Your task to perform on an android device: Open internet settings Image 0: 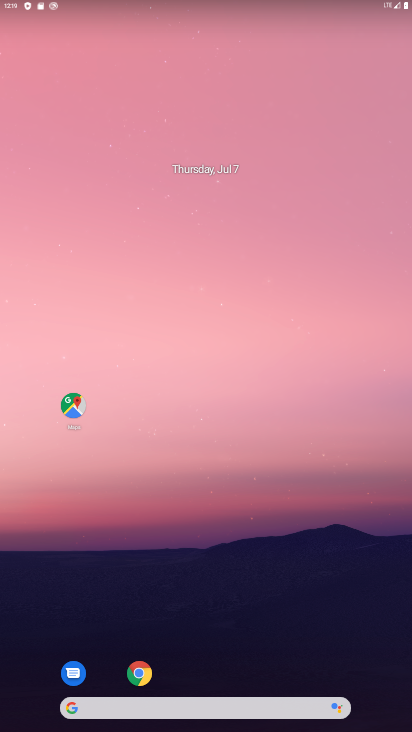
Step 0: drag from (189, 635) to (189, 113)
Your task to perform on an android device: Open internet settings Image 1: 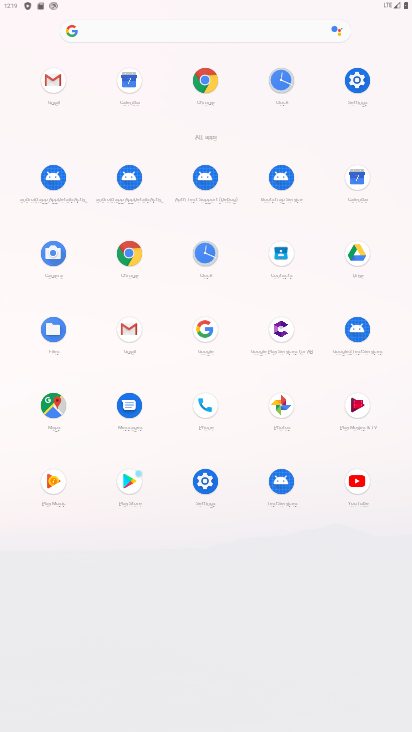
Step 1: click (195, 483)
Your task to perform on an android device: Open internet settings Image 2: 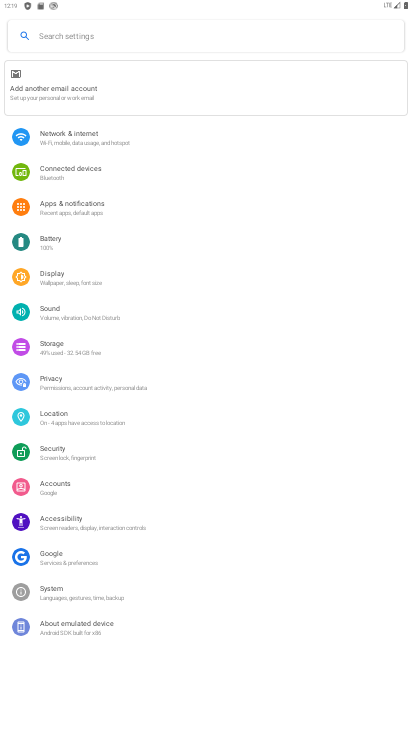
Step 2: click (118, 30)
Your task to perform on an android device: Open internet settings Image 3: 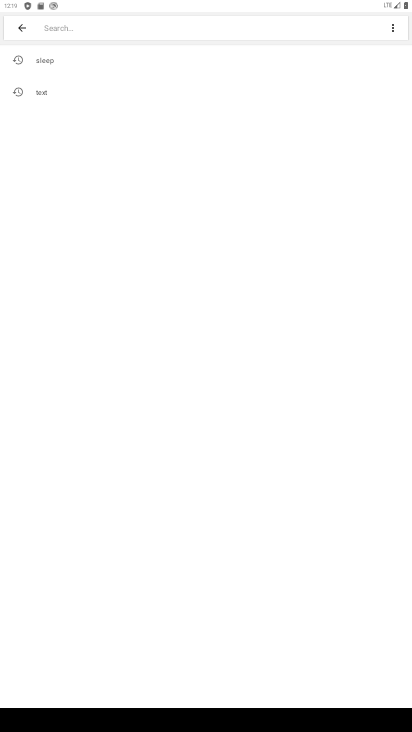
Step 3: type "internet setting"
Your task to perform on an android device: Open internet settings Image 4: 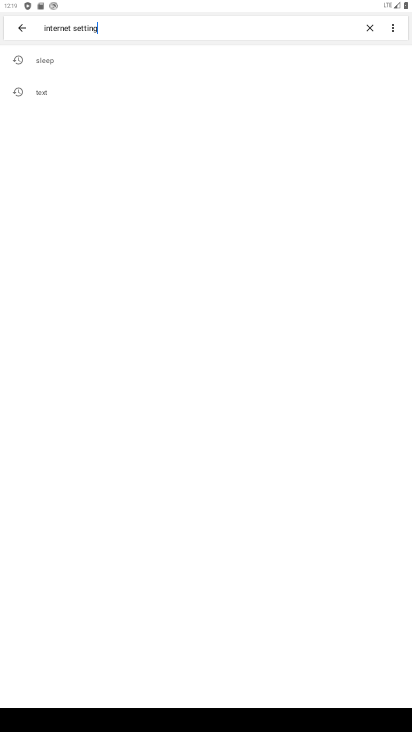
Step 4: type ""
Your task to perform on an android device: Open internet settings Image 5: 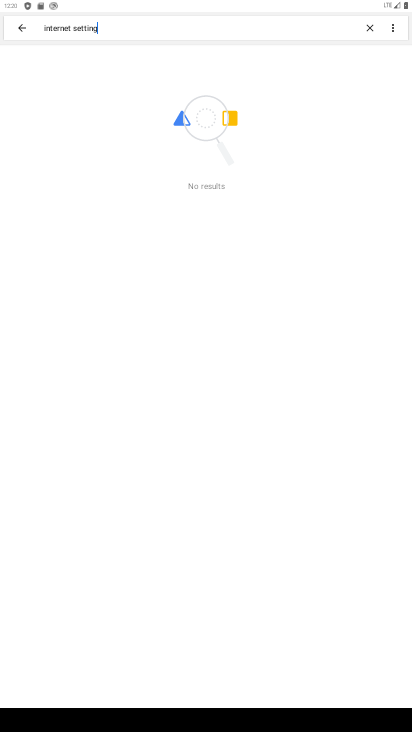
Step 5: drag from (71, 25) to (136, 31)
Your task to perform on an android device: Open internet settings Image 6: 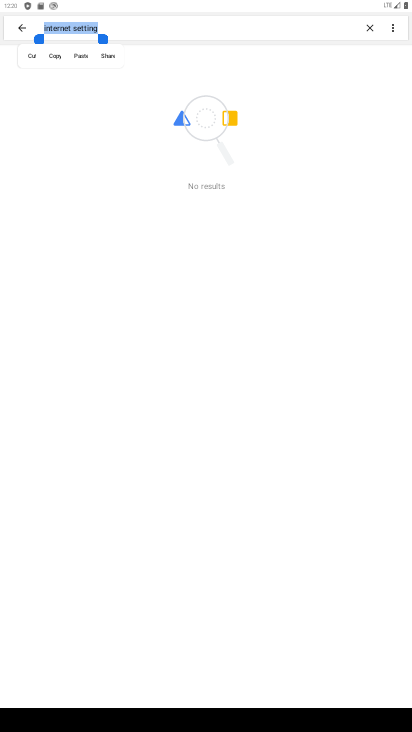
Step 6: click (107, 25)
Your task to perform on an android device: Open internet settings Image 7: 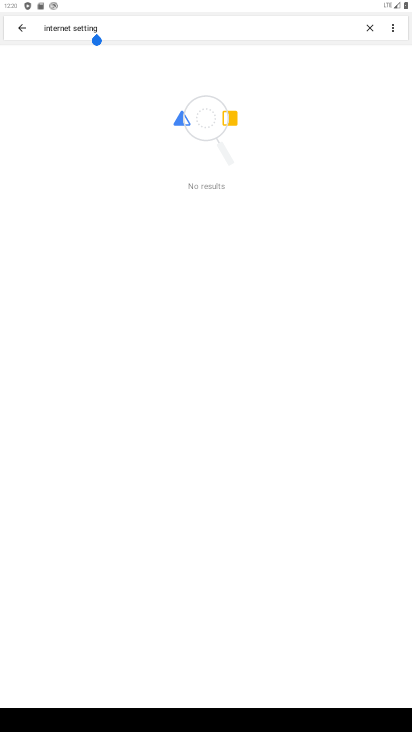
Step 7: click (138, 24)
Your task to perform on an android device: Open internet settings Image 8: 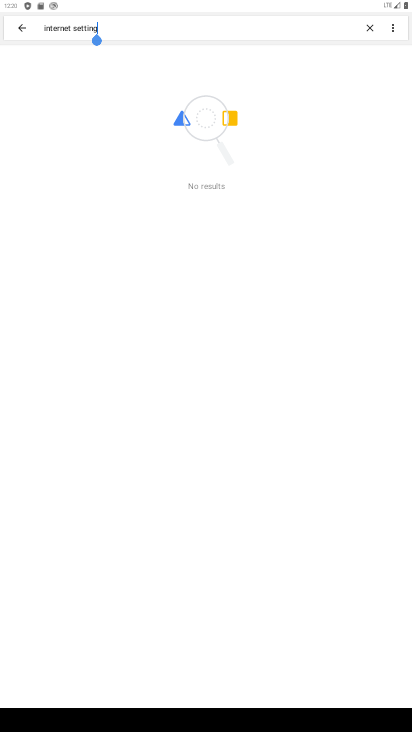
Step 8: drag from (138, 24) to (72, 23)
Your task to perform on an android device: Open internet settings Image 9: 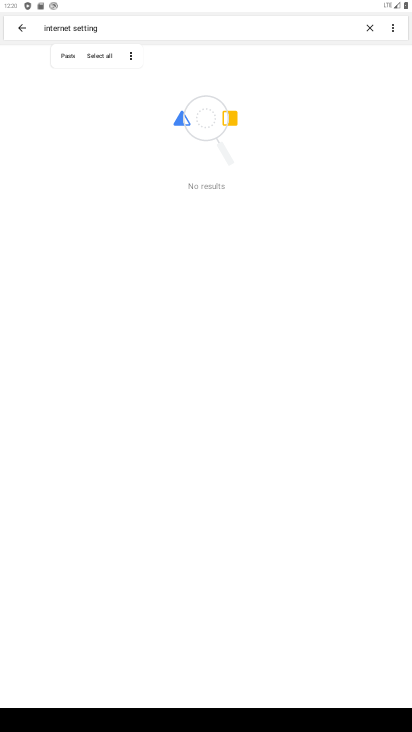
Step 9: click (26, 34)
Your task to perform on an android device: Open internet settings Image 10: 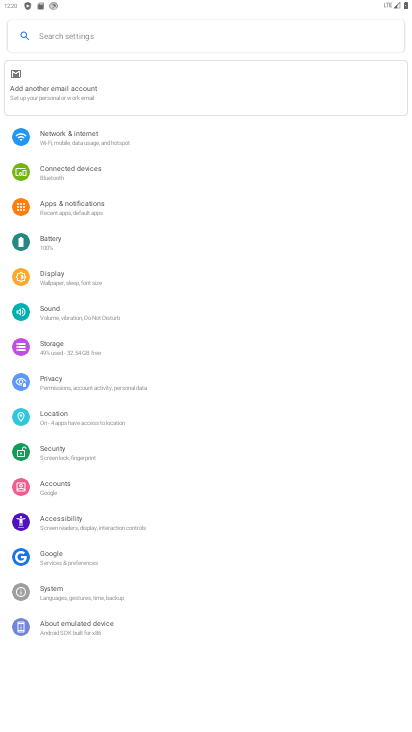
Step 10: click (79, 146)
Your task to perform on an android device: Open internet settings Image 11: 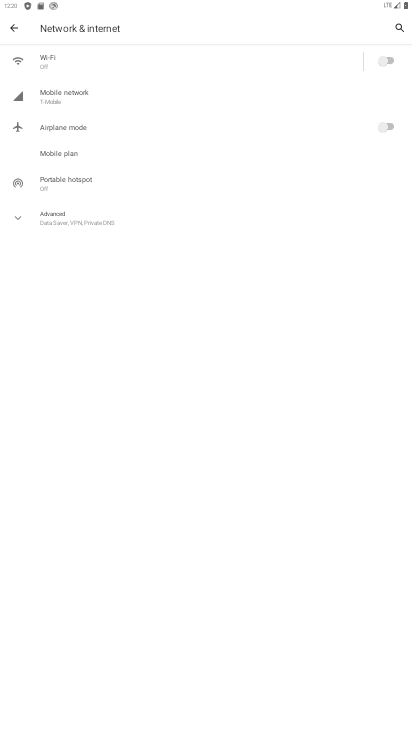
Step 11: click (45, 212)
Your task to perform on an android device: Open internet settings Image 12: 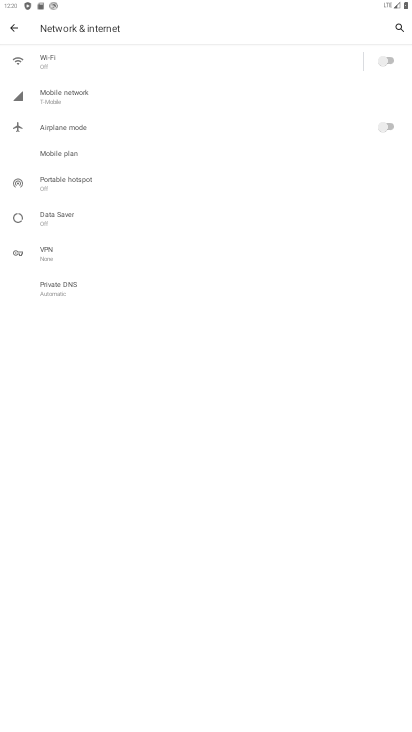
Step 12: task complete